Your task to perform on an android device: delete location history Image 0: 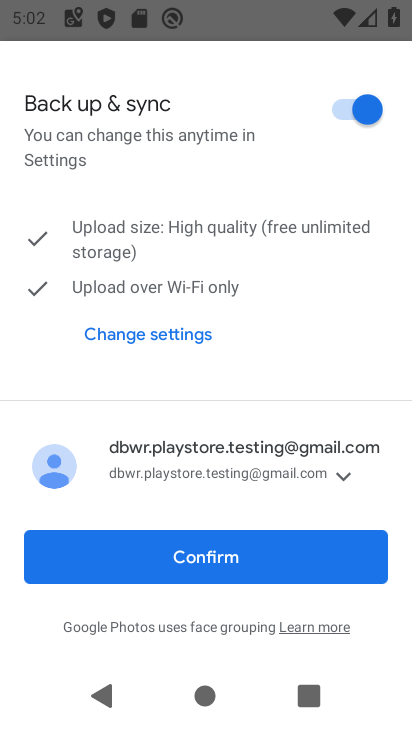
Step 0: press home button
Your task to perform on an android device: delete location history Image 1: 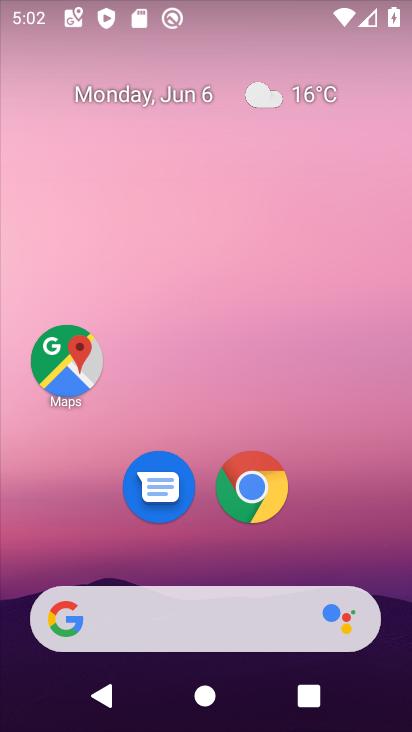
Step 1: click (57, 370)
Your task to perform on an android device: delete location history Image 2: 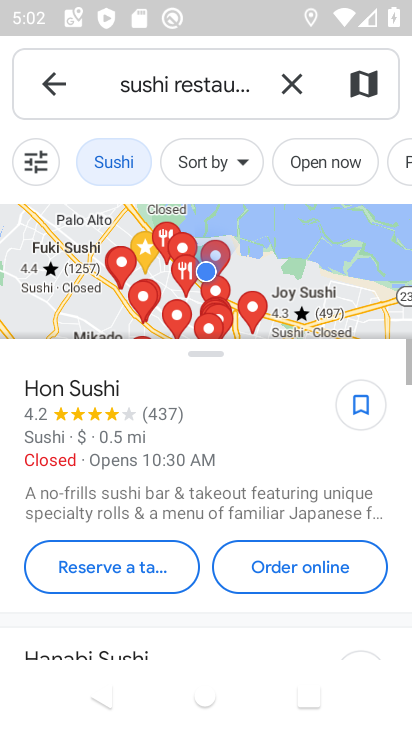
Step 2: click (58, 77)
Your task to perform on an android device: delete location history Image 3: 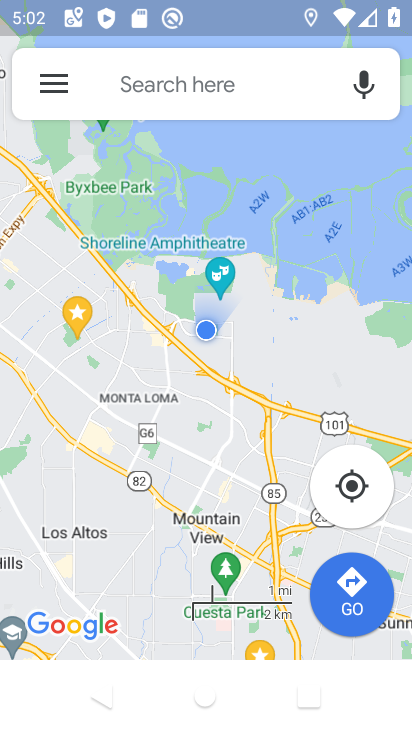
Step 3: click (58, 77)
Your task to perform on an android device: delete location history Image 4: 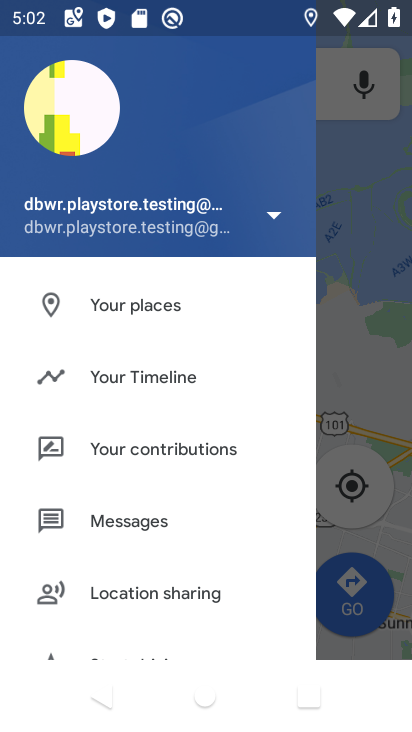
Step 4: click (118, 372)
Your task to perform on an android device: delete location history Image 5: 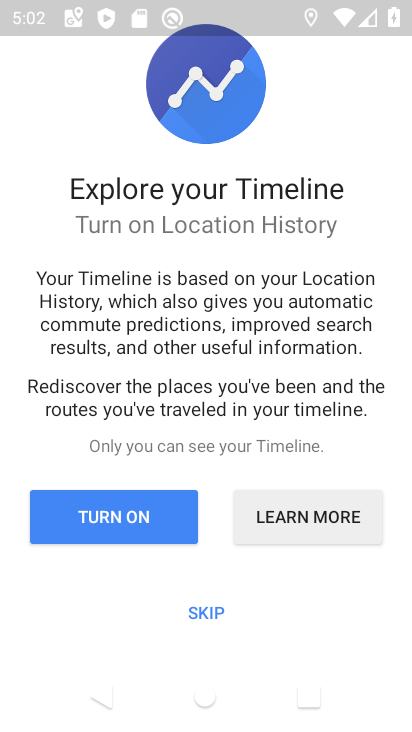
Step 5: click (218, 603)
Your task to perform on an android device: delete location history Image 6: 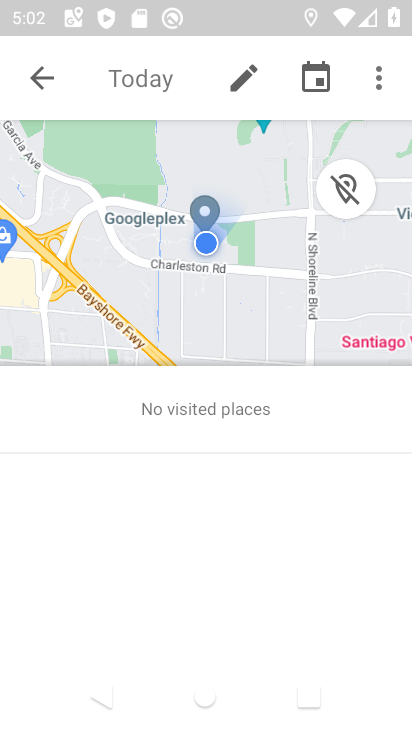
Step 6: click (372, 79)
Your task to perform on an android device: delete location history Image 7: 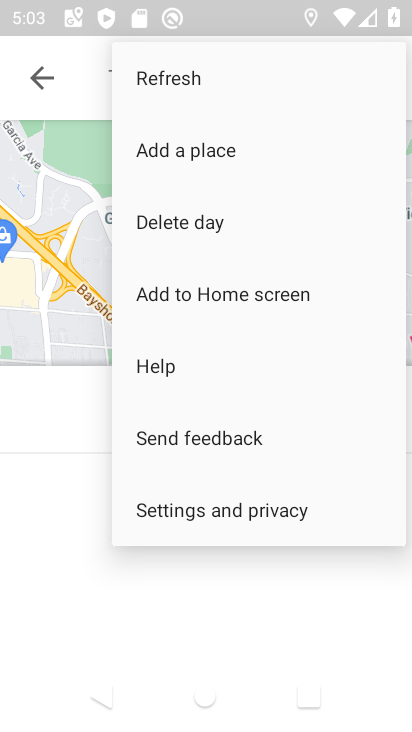
Step 7: click (269, 509)
Your task to perform on an android device: delete location history Image 8: 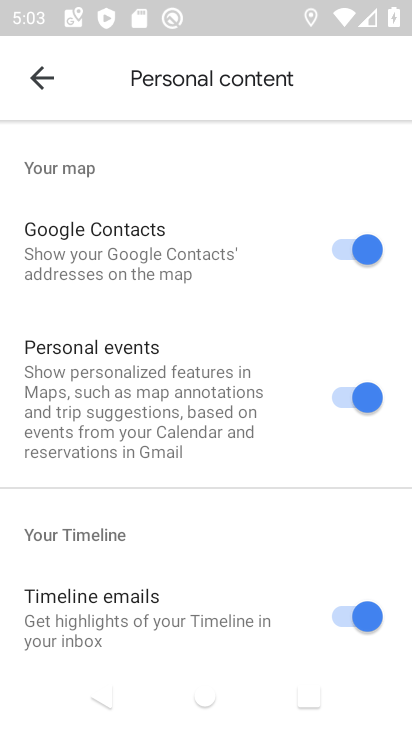
Step 8: drag from (208, 558) to (236, 112)
Your task to perform on an android device: delete location history Image 9: 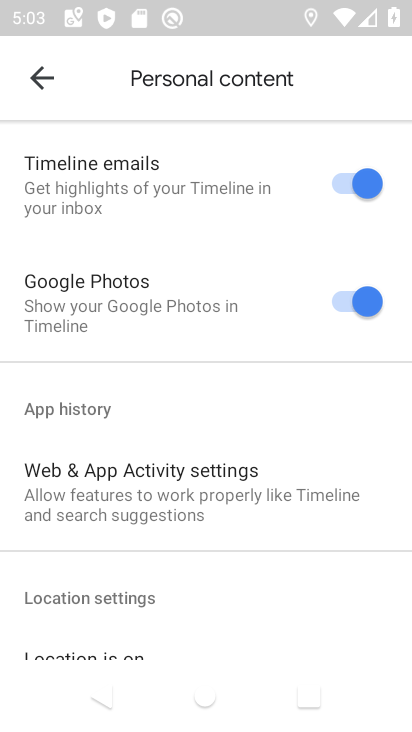
Step 9: drag from (218, 587) to (187, 138)
Your task to perform on an android device: delete location history Image 10: 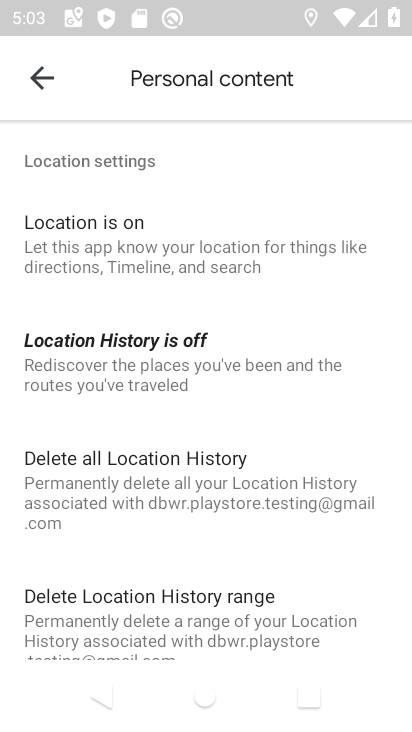
Step 10: click (182, 473)
Your task to perform on an android device: delete location history Image 11: 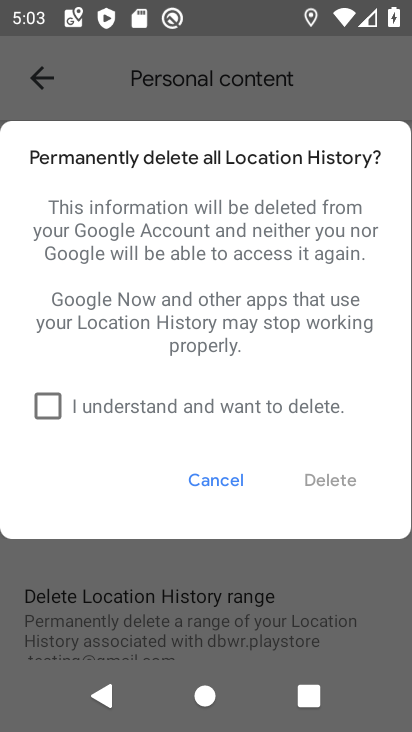
Step 11: click (46, 410)
Your task to perform on an android device: delete location history Image 12: 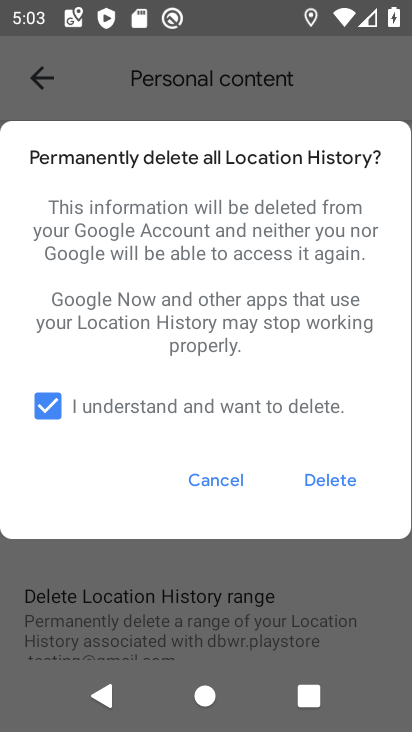
Step 12: click (339, 474)
Your task to perform on an android device: delete location history Image 13: 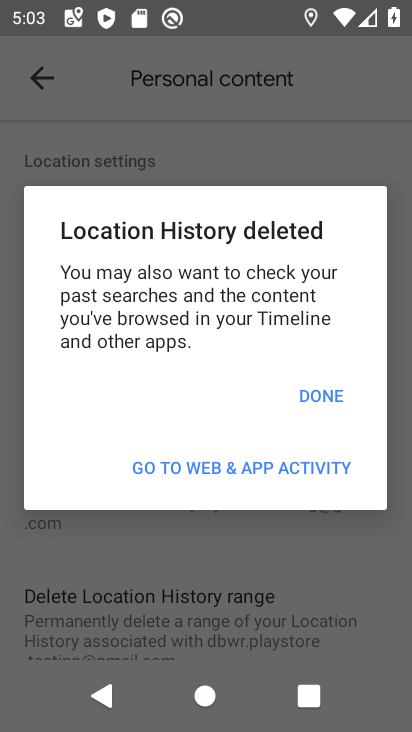
Step 13: click (320, 391)
Your task to perform on an android device: delete location history Image 14: 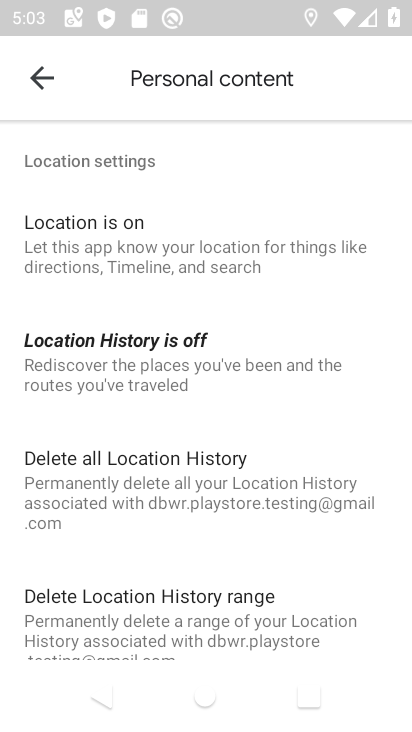
Step 14: task complete